Your task to perform on an android device: turn off improve location accuracy Image 0: 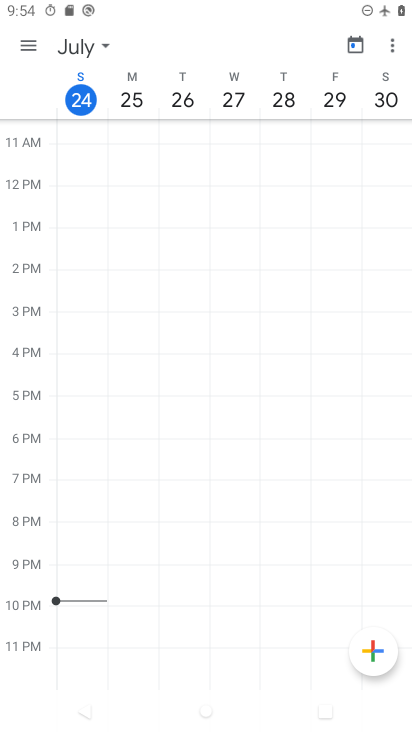
Step 0: press home button
Your task to perform on an android device: turn off improve location accuracy Image 1: 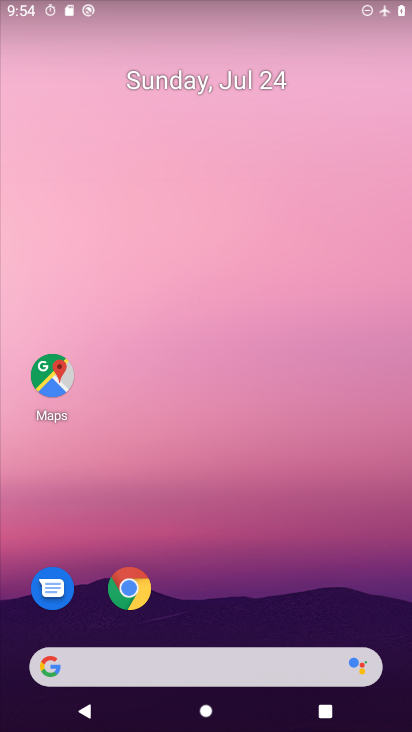
Step 1: drag from (272, 633) to (272, 34)
Your task to perform on an android device: turn off improve location accuracy Image 2: 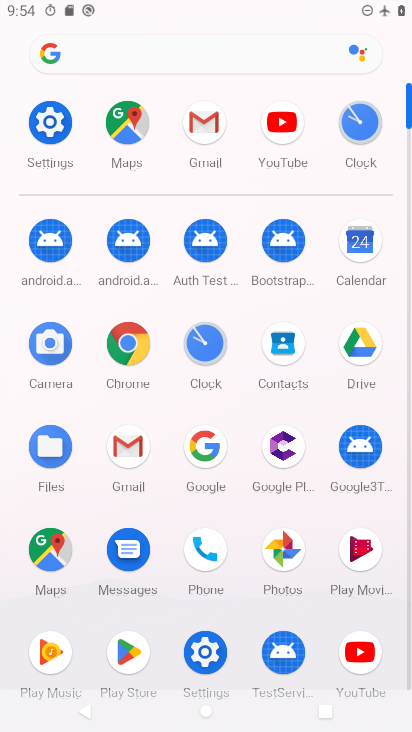
Step 2: click (48, 121)
Your task to perform on an android device: turn off improve location accuracy Image 3: 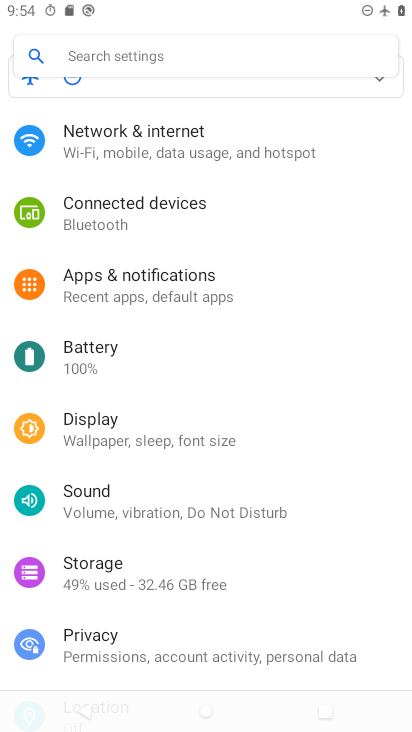
Step 3: drag from (232, 575) to (233, 226)
Your task to perform on an android device: turn off improve location accuracy Image 4: 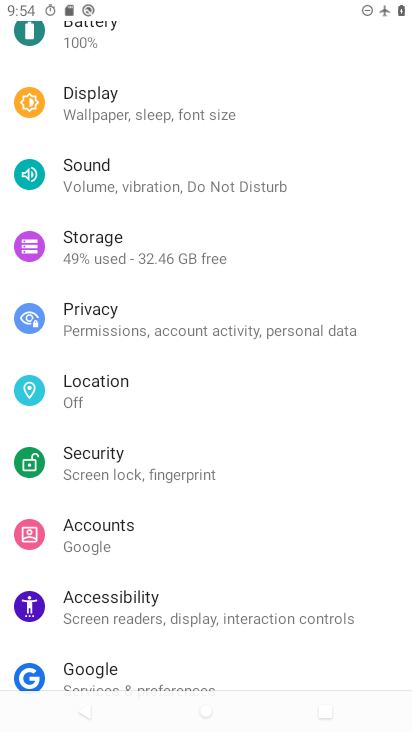
Step 4: click (54, 393)
Your task to perform on an android device: turn off improve location accuracy Image 5: 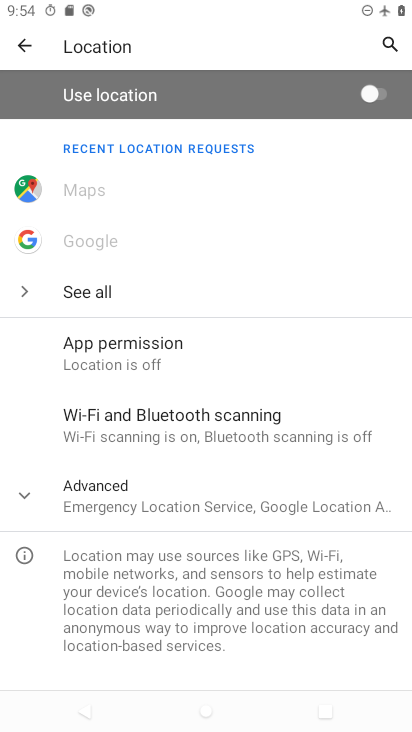
Step 5: click (23, 501)
Your task to perform on an android device: turn off improve location accuracy Image 6: 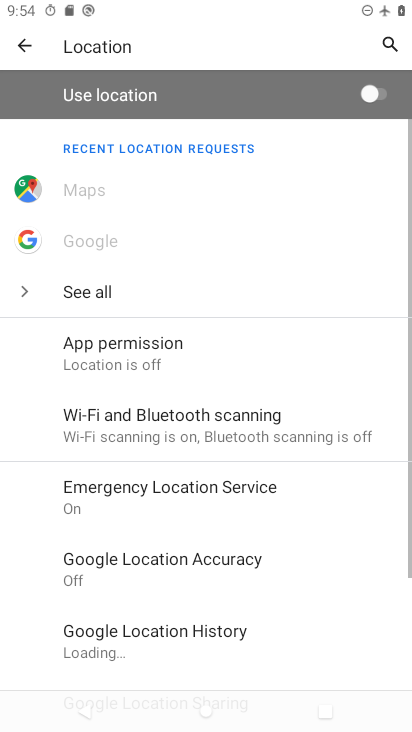
Step 6: drag from (133, 526) to (146, 284)
Your task to perform on an android device: turn off improve location accuracy Image 7: 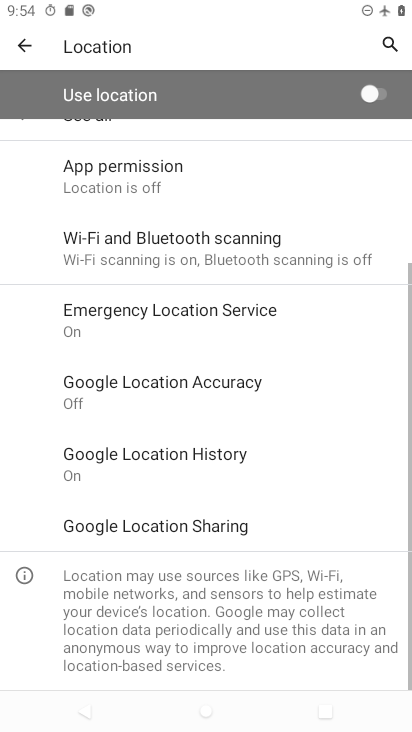
Step 7: click (115, 387)
Your task to perform on an android device: turn off improve location accuracy Image 8: 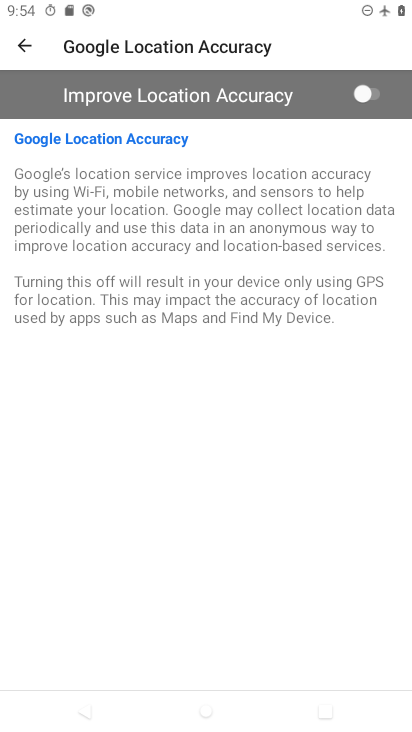
Step 8: task complete